Your task to perform on an android device: turn on wifi Image 0: 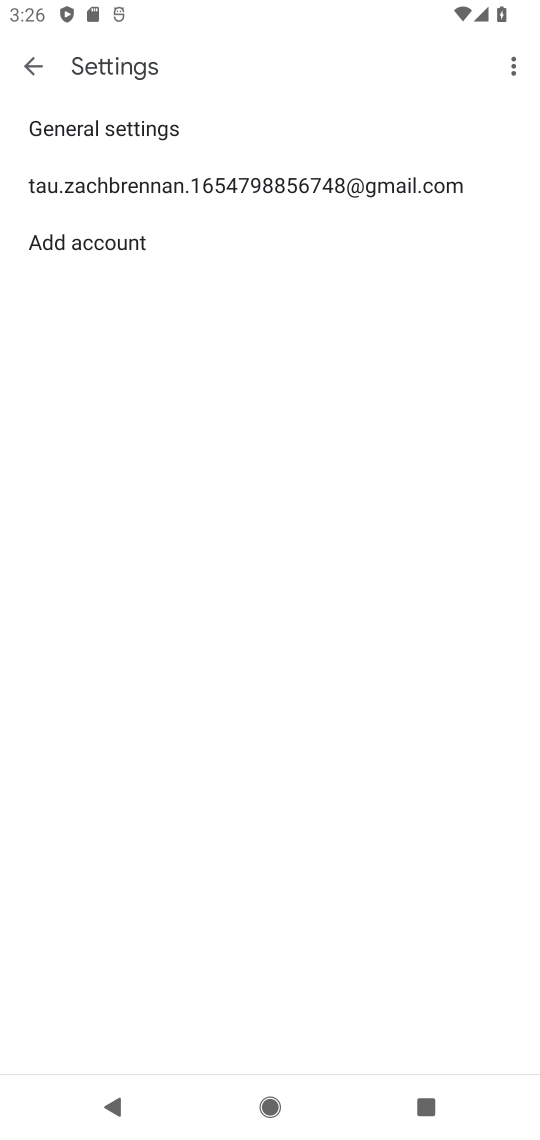
Step 0: press home button
Your task to perform on an android device: turn on wifi Image 1: 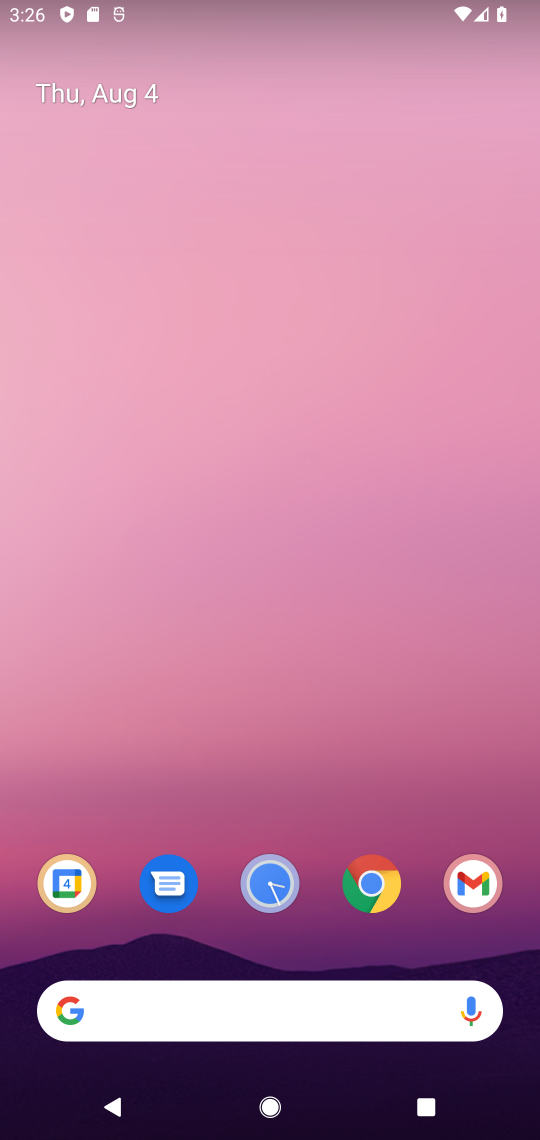
Step 1: drag from (411, 797) to (227, 29)
Your task to perform on an android device: turn on wifi Image 2: 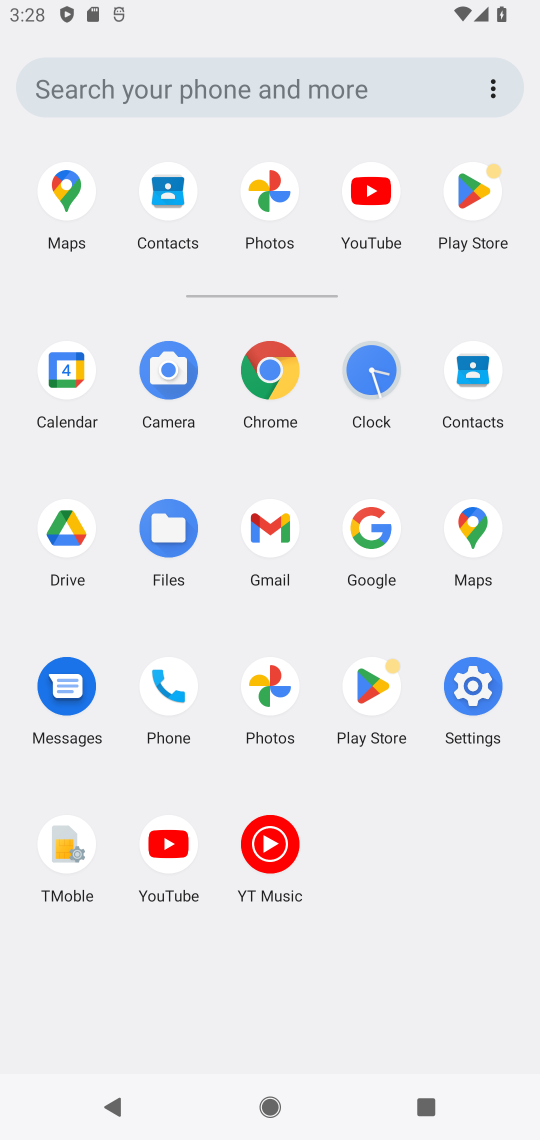
Step 2: click (463, 691)
Your task to perform on an android device: turn on wifi Image 3: 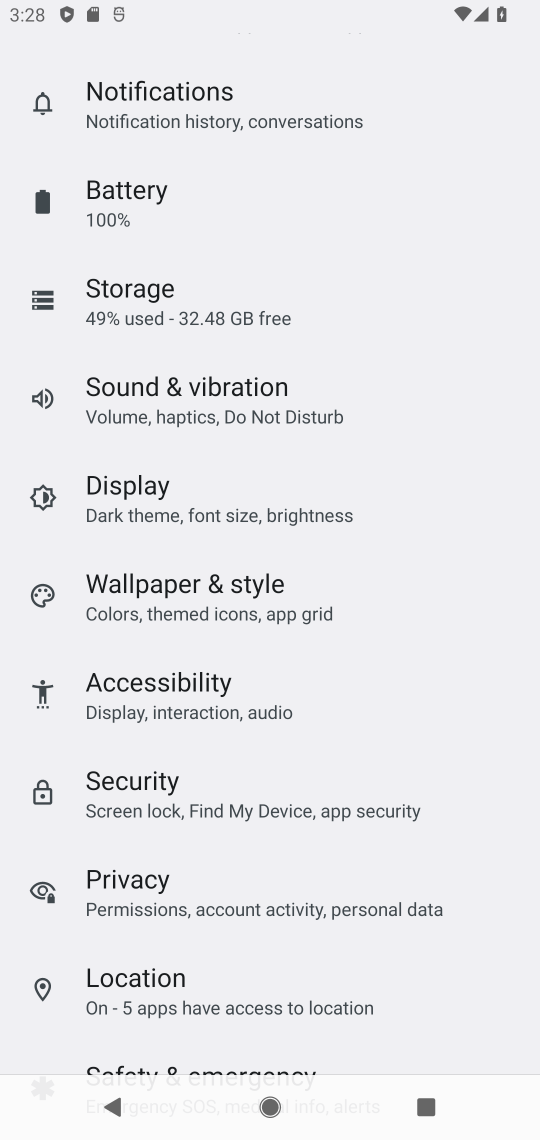
Step 3: drag from (163, 243) to (266, 1134)
Your task to perform on an android device: turn on wifi Image 4: 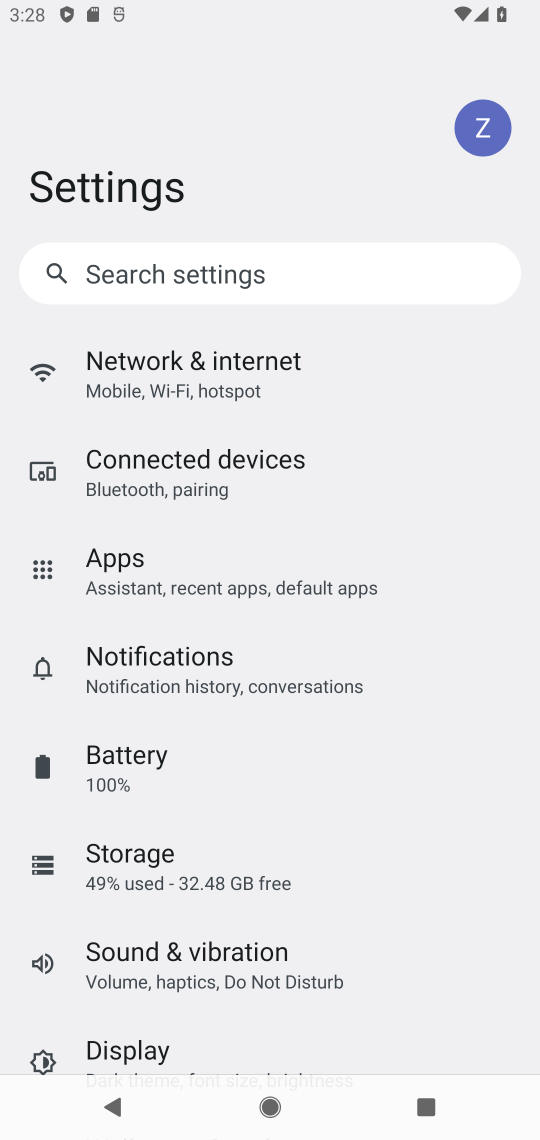
Step 4: click (232, 375)
Your task to perform on an android device: turn on wifi Image 5: 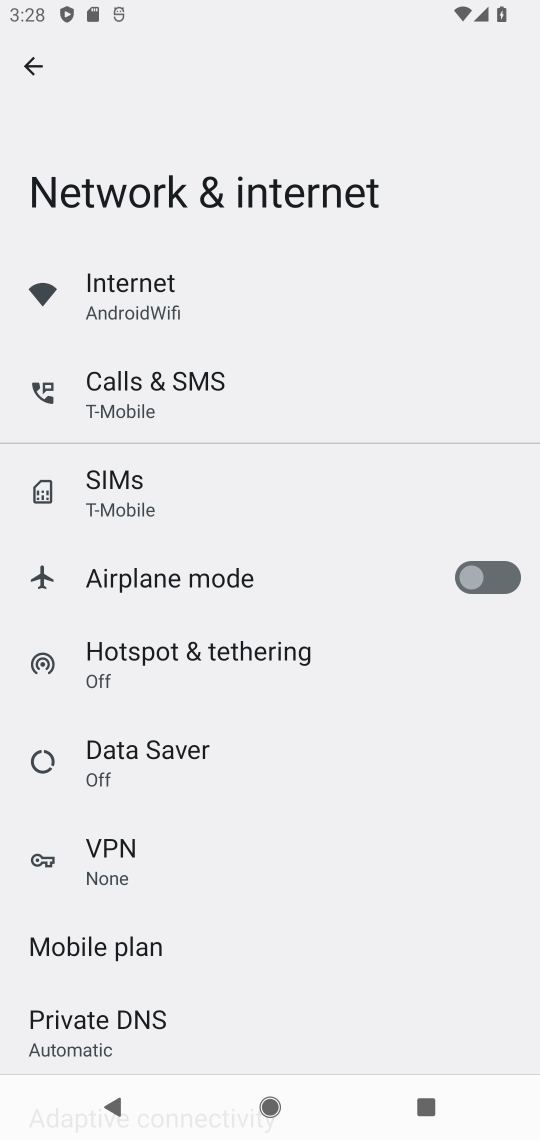
Step 5: click (113, 301)
Your task to perform on an android device: turn on wifi Image 6: 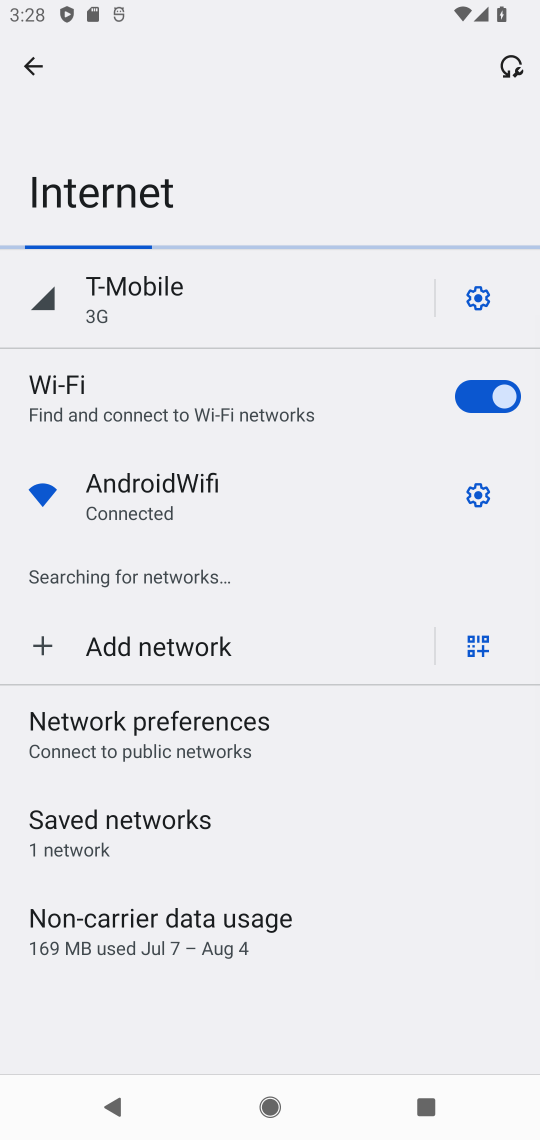
Step 6: task complete